Your task to perform on an android device: check google app version Image 0: 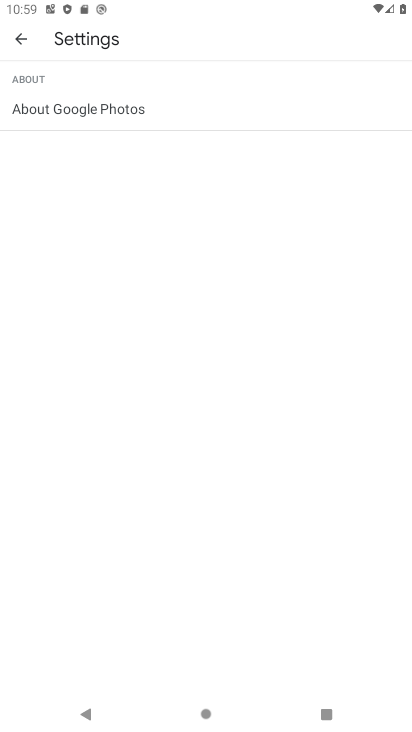
Step 0: press home button
Your task to perform on an android device: check google app version Image 1: 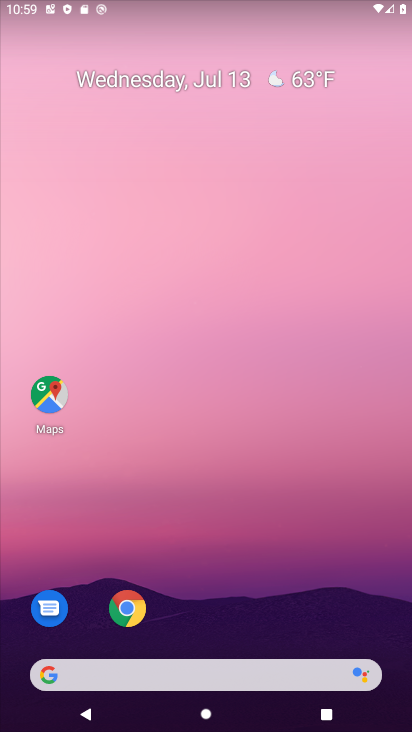
Step 1: drag from (296, 603) to (282, 67)
Your task to perform on an android device: check google app version Image 2: 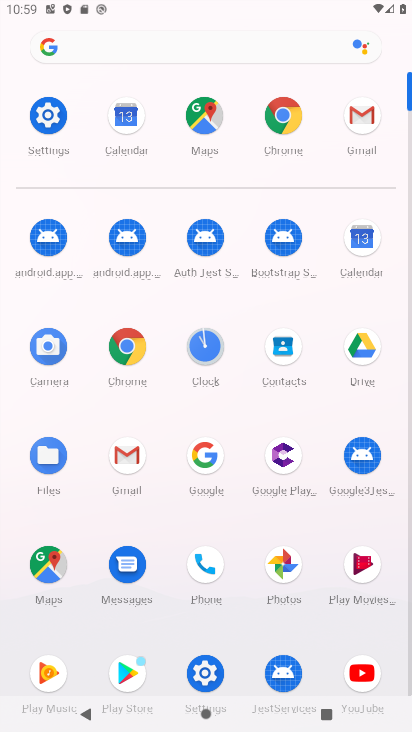
Step 2: click (201, 453)
Your task to perform on an android device: check google app version Image 3: 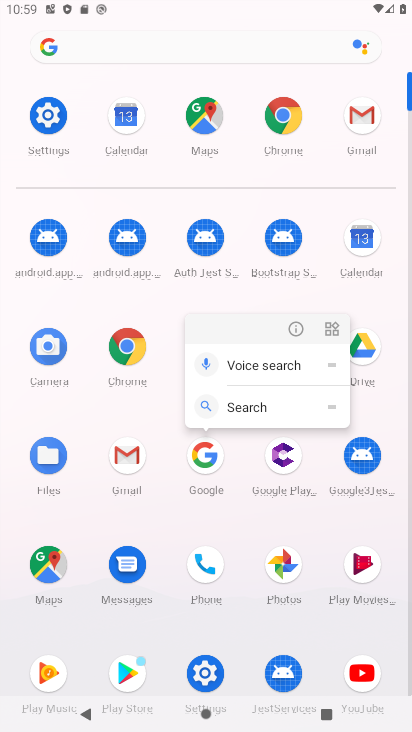
Step 3: click (295, 327)
Your task to perform on an android device: check google app version Image 4: 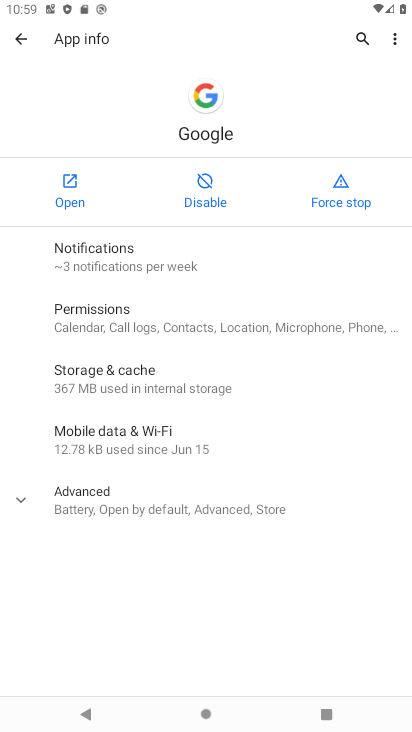
Step 4: click (26, 503)
Your task to perform on an android device: check google app version Image 5: 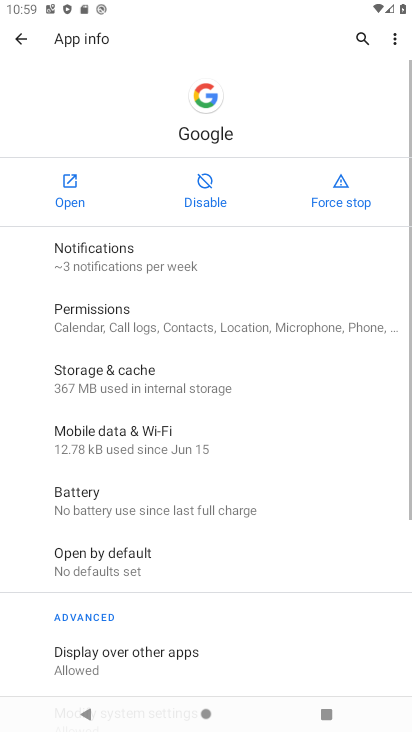
Step 5: task complete